Your task to perform on an android device: check battery use Image 0: 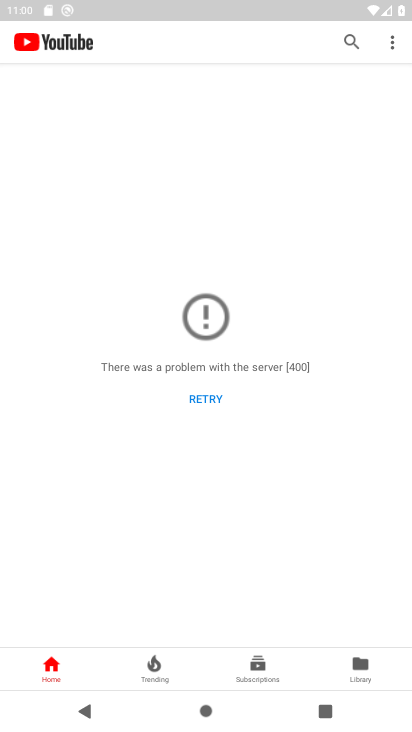
Step 0: press home button
Your task to perform on an android device: check battery use Image 1: 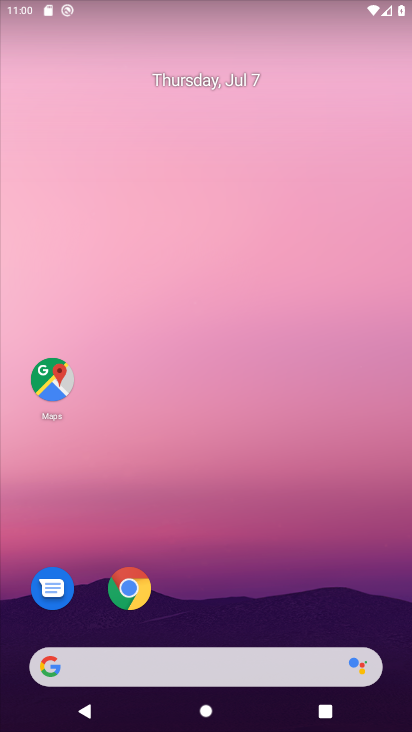
Step 1: drag from (217, 586) to (276, 23)
Your task to perform on an android device: check battery use Image 2: 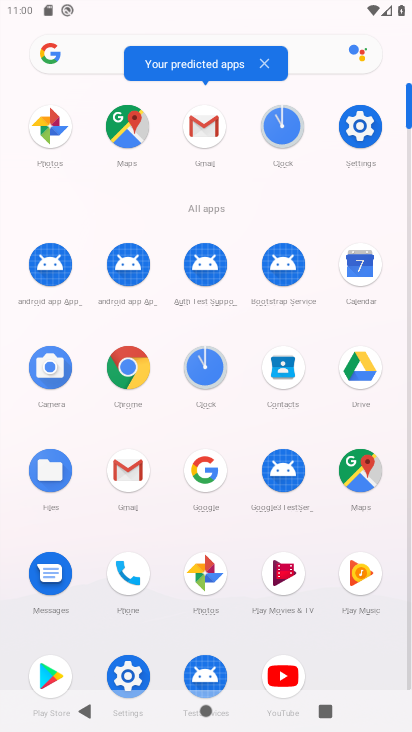
Step 2: click (365, 130)
Your task to perform on an android device: check battery use Image 3: 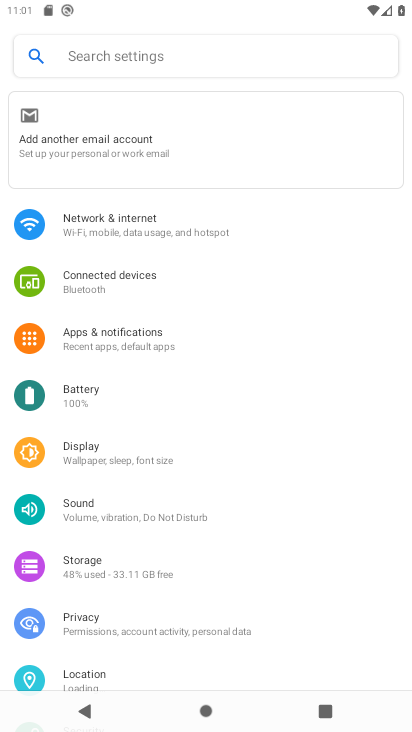
Step 3: click (113, 405)
Your task to perform on an android device: check battery use Image 4: 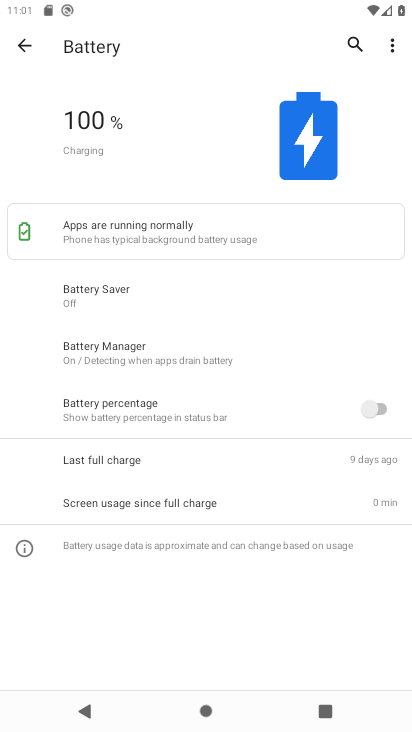
Step 4: click (388, 47)
Your task to perform on an android device: check battery use Image 5: 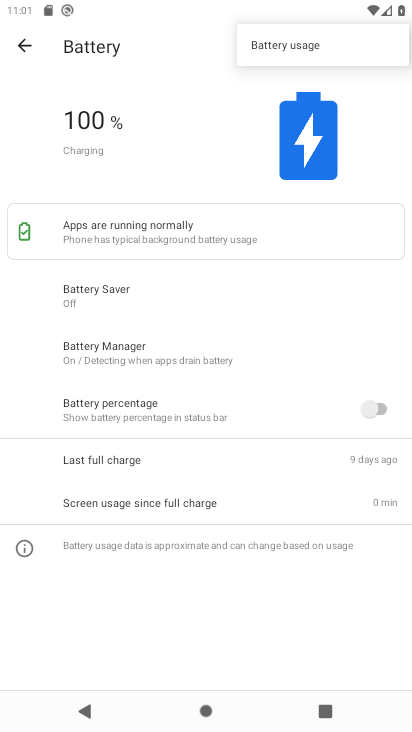
Step 5: click (283, 53)
Your task to perform on an android device: check battery use Image 6: 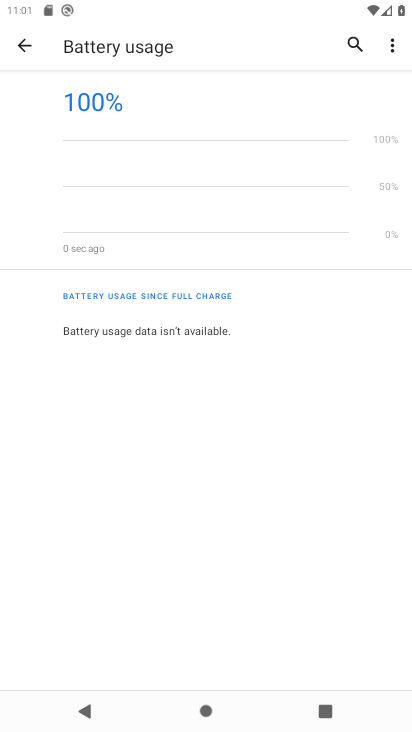
Step 6: task complete